Your task to perform on an android device: Go to Google Image 0: 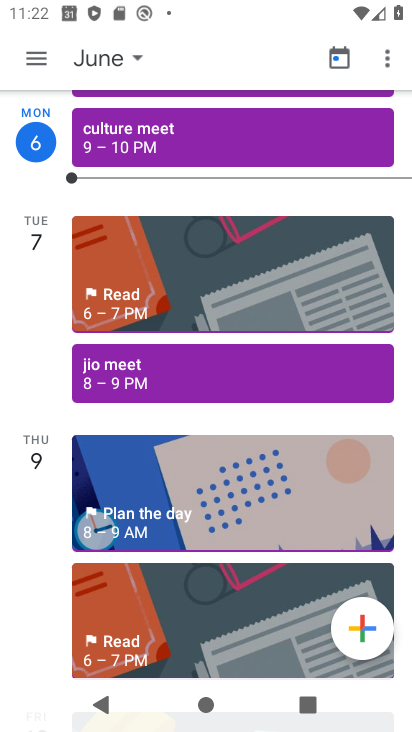
Step 0: press back button
Your task to perform on an android device: Go to Google Image 1: 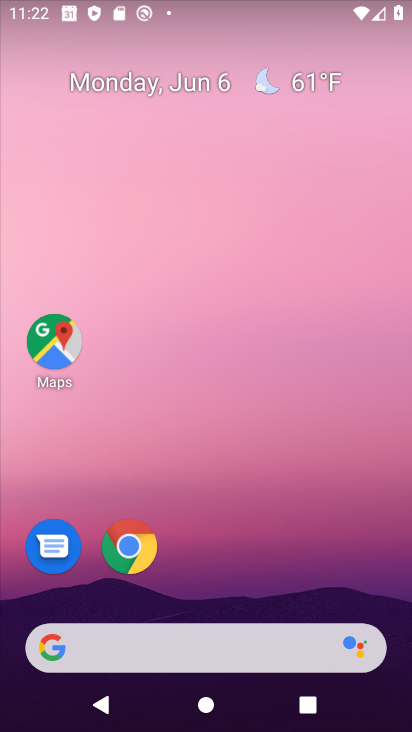
Step 1: drag from (268, 546) to (341, 3)
Your task to perform on an android device: Go to Google Image 2: 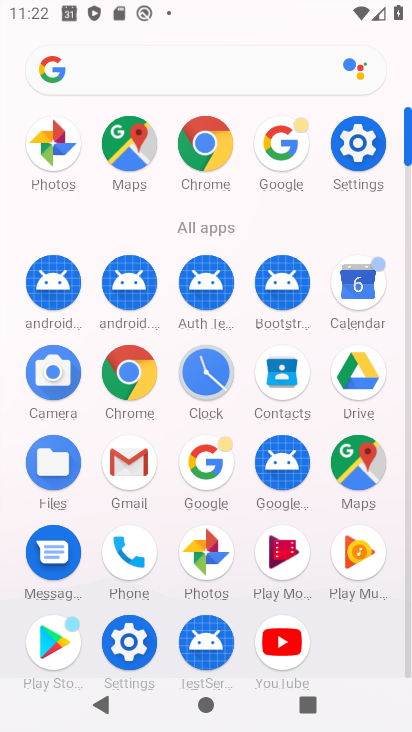
Step 2: click (292, 148)
Your task to perform on an android device: Go to Google Image 3: 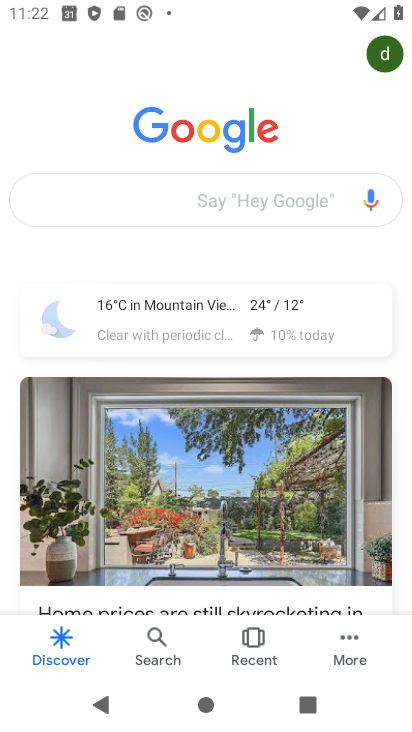
Step 3: task complete